Your task to perform on an android device: Open the web browser Image 0: 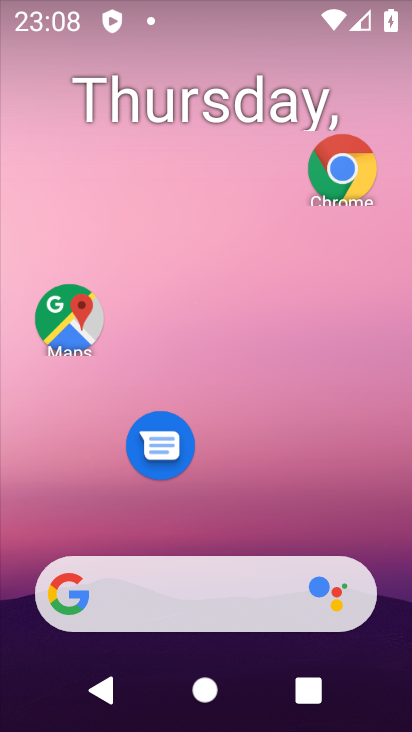
Step 0: drag from (230, 550) to (263, 105)
Your task to perform on an android device: Open the web browser Image 1: 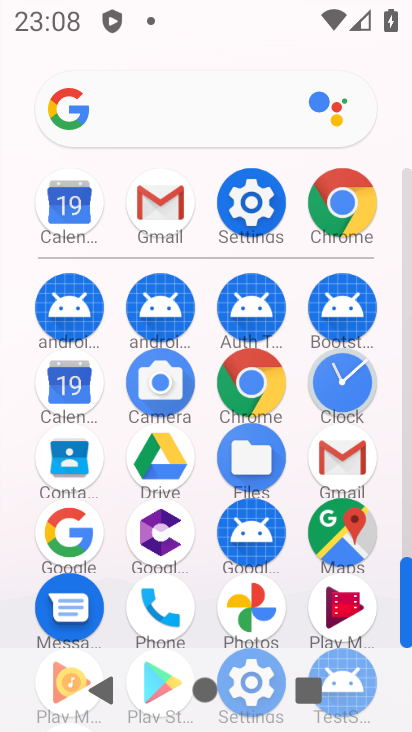
Step 1: click (349, 204)
Your task to perform on an android device: Open the web browser Image 2: 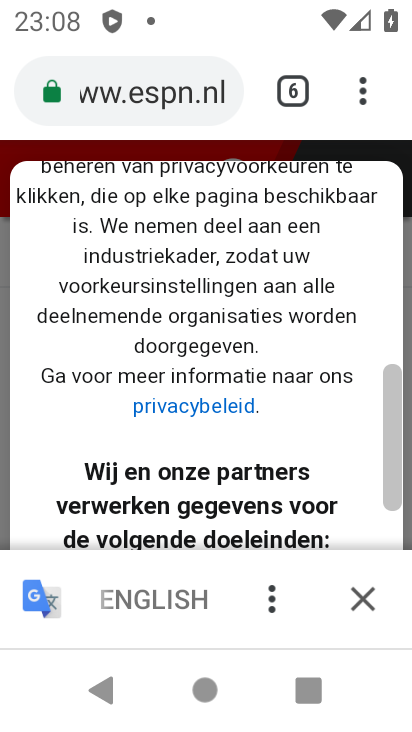
Step 2: drag from (236, 517) to (275, 232)
Your task to perform on an android device: Open the web browser Image 3: 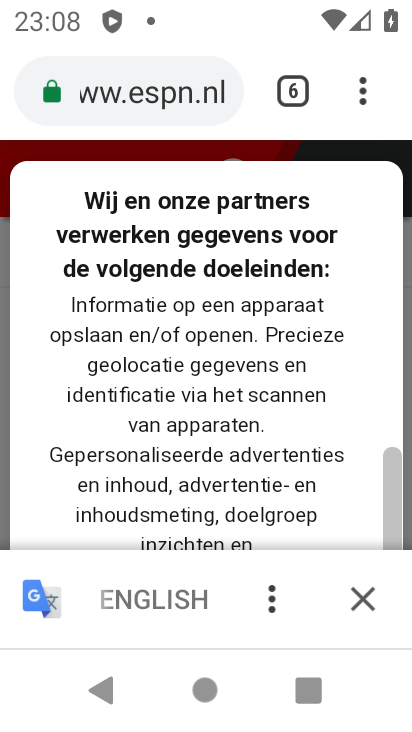
Step 3: click (363, 105)
Your task to perform on an android device: Open the web browser Image 4: 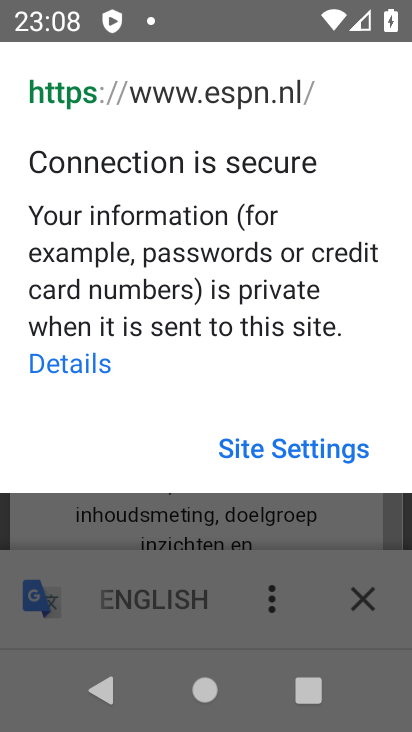
Step 4: task complete